Your task to perform on an android device: Open Chrome and go to the settings page Image 0: 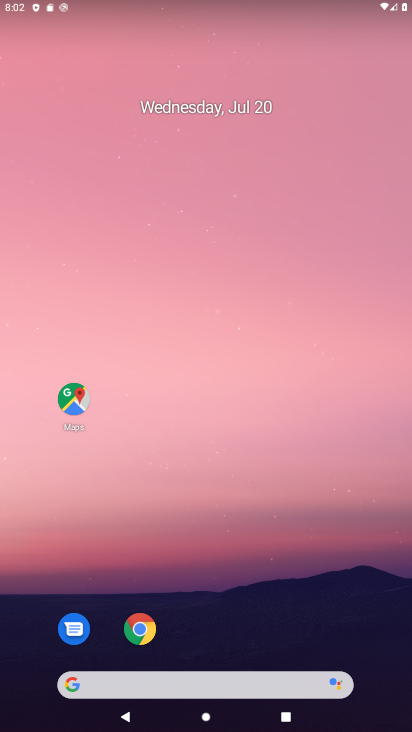
Step 0: click (149, 629)
Your task to perform on an android device: Open Chrome and go to the settings page Image 1: 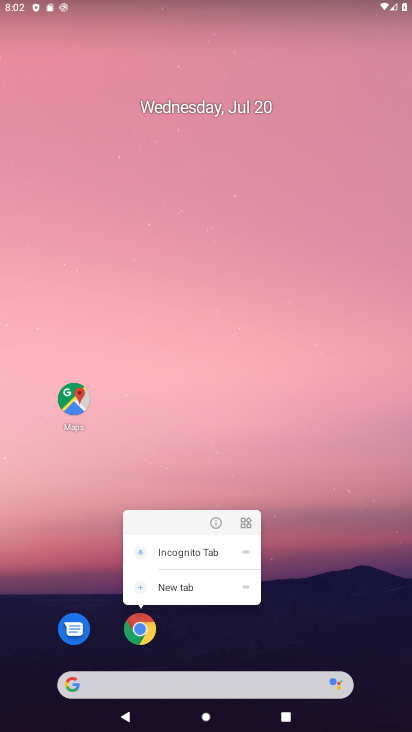
Step 1: click (149, 629)
Your task to perform on an android device: Open Chrome and go to the settings page Image 2: 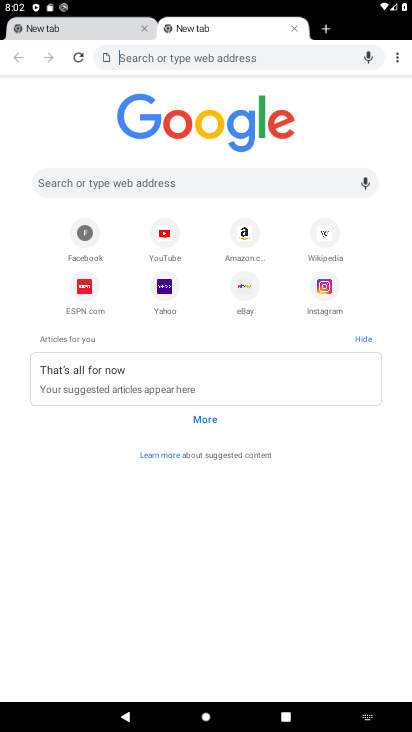
Step 2: click (392, 56)
Your task to perform on an android device: Open Chrome and go to the settings page Image 3: 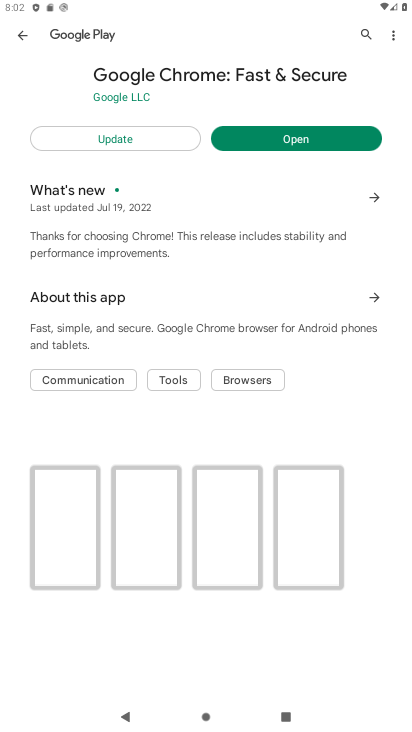
Step 3: press back button
Your task to perform on an android device: Open Chrome and go to the settings page Image 4: 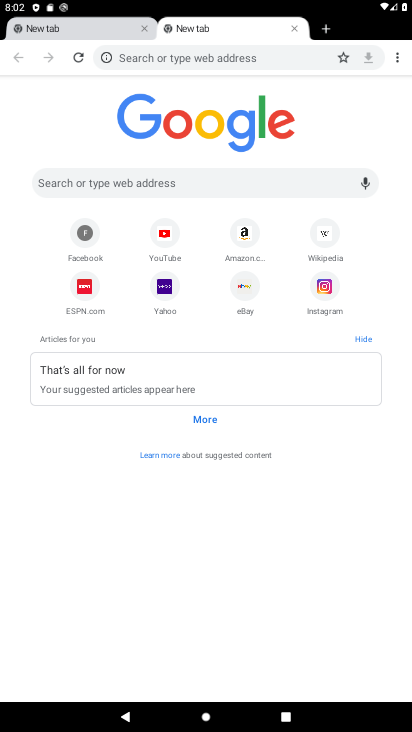
Step 4: click (395, 53)
Your task to perform on an android device: Open Chrome and go to the settings page Image 5: 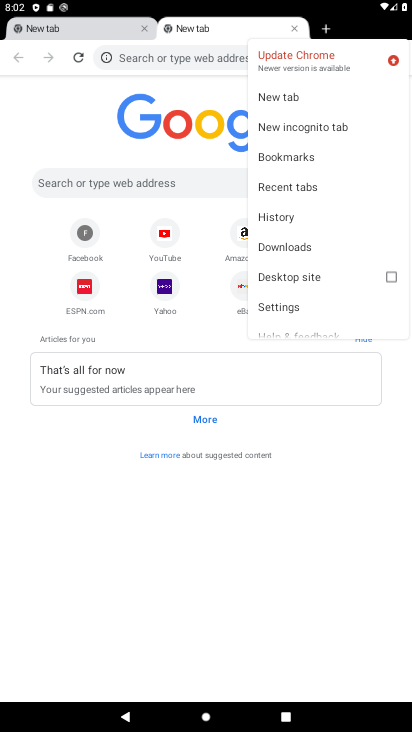
Step 5: click (268, 305)
Your task to perform on an android device: Open Chrome and go to the settings page Image 6: 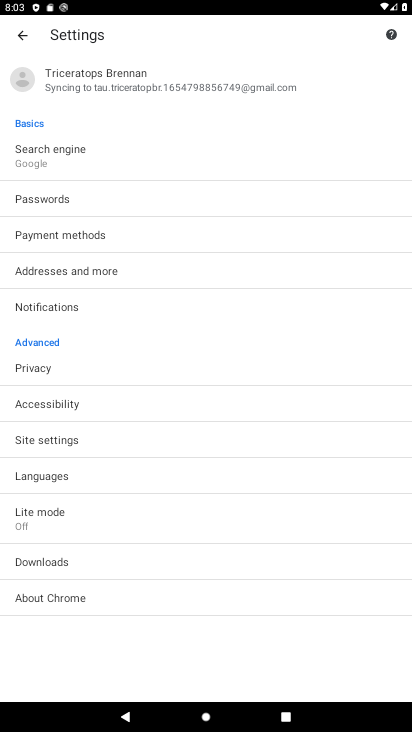
Step 6: task complete